Your task to perform on an android device: Do I have any events this weekend? Image 0: 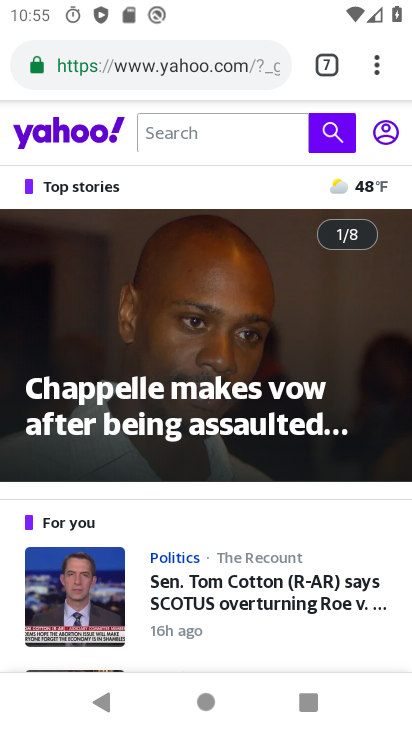
Step 0: press home button
Your task to perform on an android device: Do I have any events this weekend? Image 1: 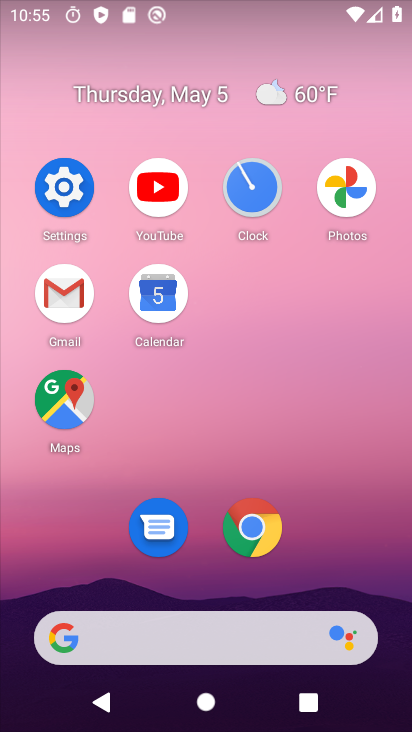
Step 1: click (156, 320)
Your task to perform on an android device: Do I have any events this weekend? Image 2: 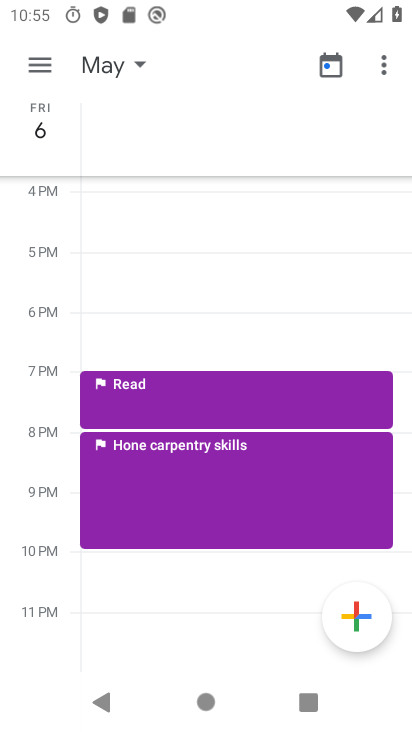
Step 2: click (39, 78)
Your task to perform on an android device: Do I have any events this weekend? Image 3: 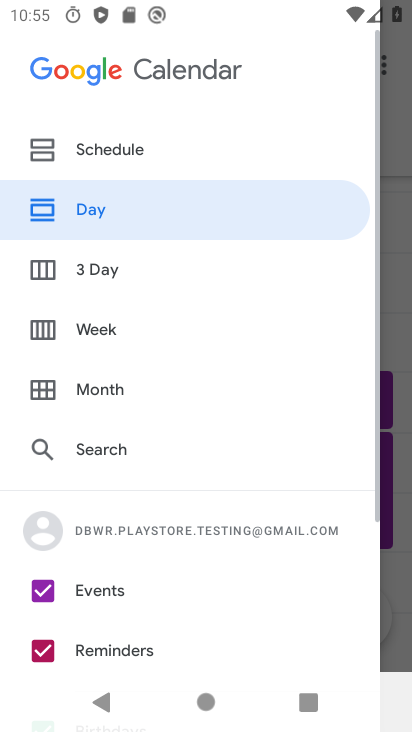
Step 3: click (121, 338)
Your task to perform on an android device: Do I have any events this weekend? Image 4: 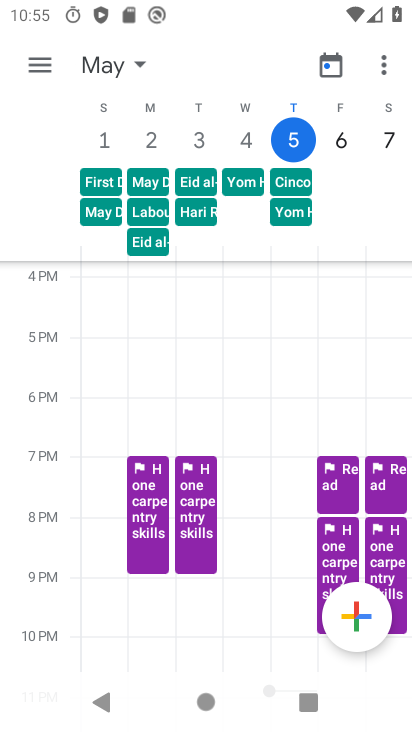
Step 4: click (348, 140)
Your task to perform on an android device: Do I have any events this weekend? Image 5: 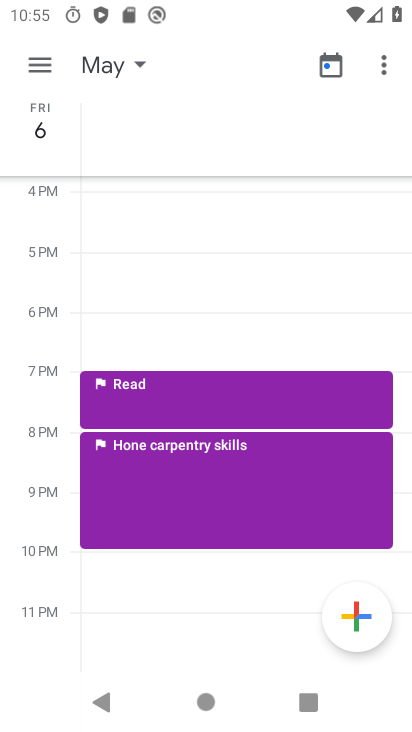
Step 5: task complete